Your task to perform on an android device: Search for vegetarian restaurants on Maps Image 0: 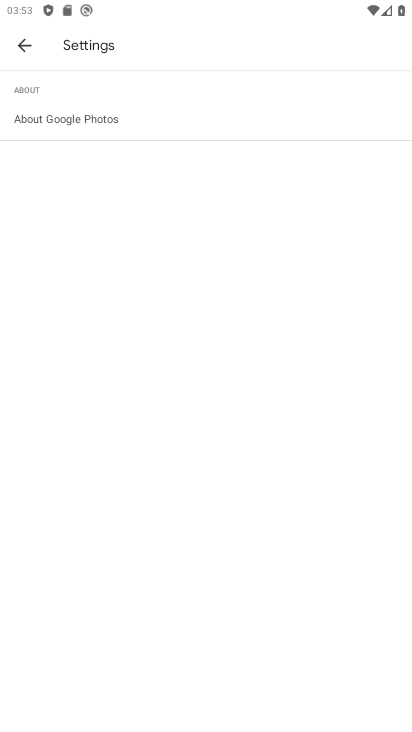
Step 0: press home button
Your task to perform on an android device: Search for vegetarian restaurants on Maps Image 1: 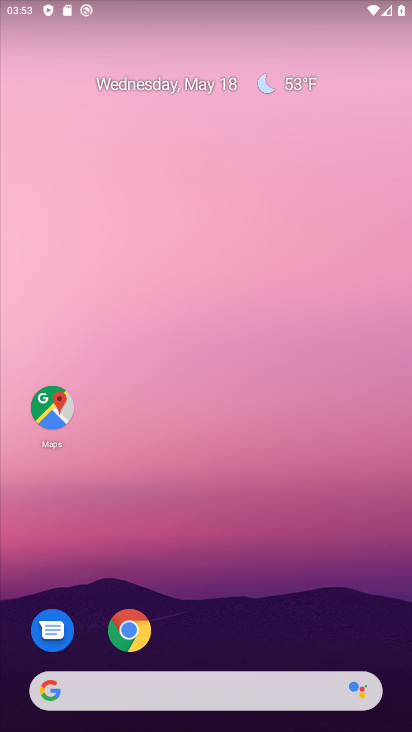
Step 1: drag from (203, 721) to (218, 179)
Your task to perform on an android device: Search for vegetarian restaurants on Maps Image 2: 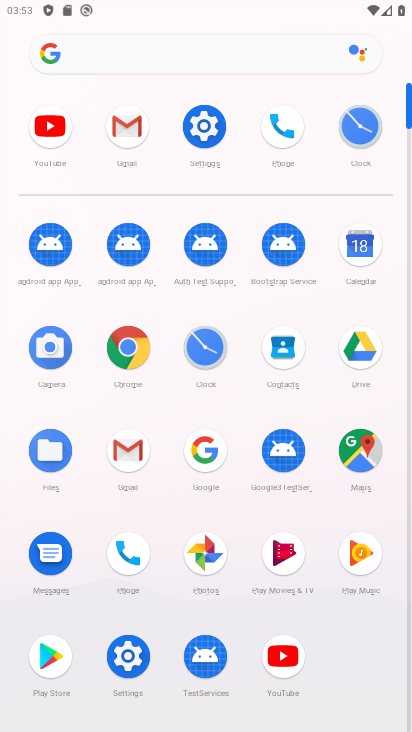
Step 2: click (366, 438)
Your task to perform on an android device: Search for vegetarian restaurants on Maps Image 3: 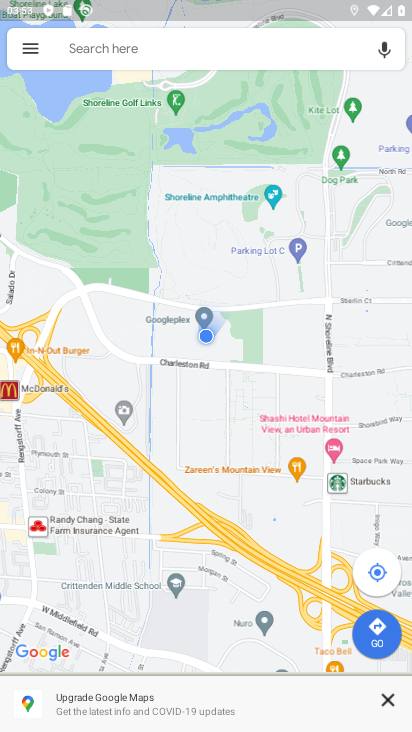
Step 3: click (213, 49)
Your task to perform on an android device: Search for vegetarian restaurants on Maps Image 4: 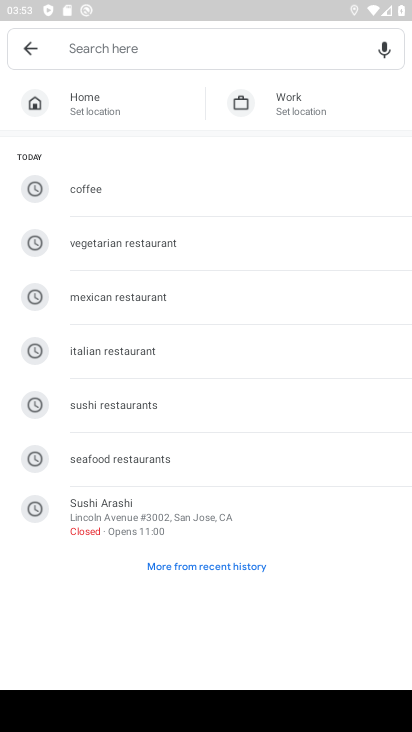
Step 4: type "Vegetarian restaurants"
Your task to perform on an android device: Search for vegetarian restaurants on Maps Image 5: 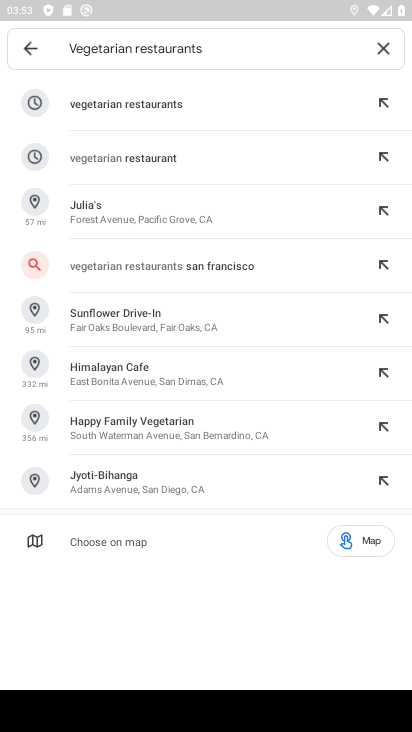
Step 5: click (137, 40)
Your task to perform on an android device: Search for vegetarian restaurants on Maps Image 6: 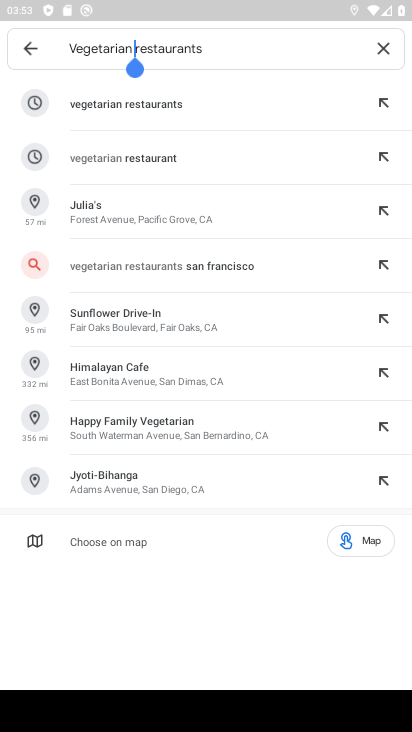
Step 6: click (120, 103)
Your task to perform on an android device: Search for vegetarian restaurants on Maps Image 7: 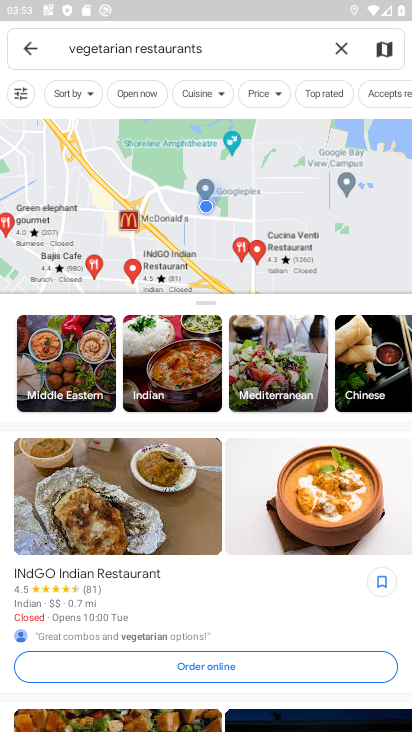
Step 7: task complete